Your task to perform on an android device: Toggle the flashlight Image 0: 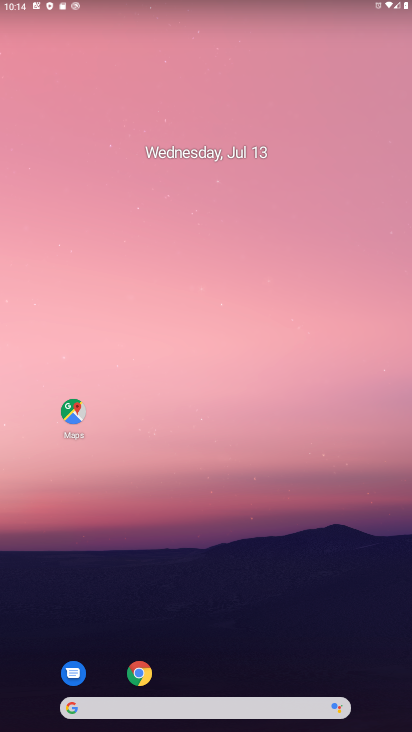
Step 0: drag from (228, 308) to (198, 117)
Your task to perform on an android device: Toggle the flashlight Image 1: 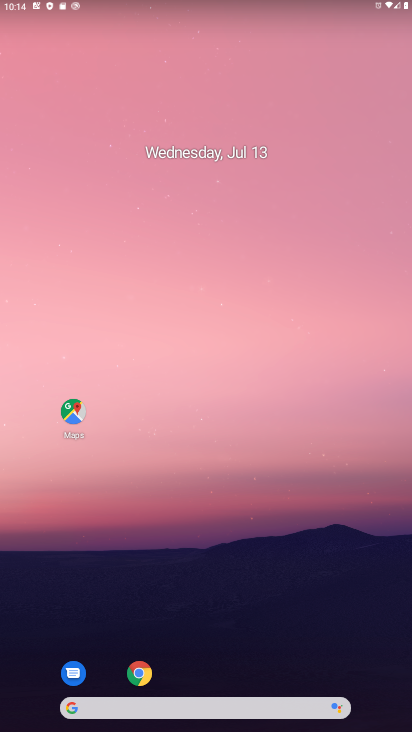
Step 1: drag from (263, 658) to (194, 196)
Your task to perform on an android device: Toggle the flashlight Image 2: 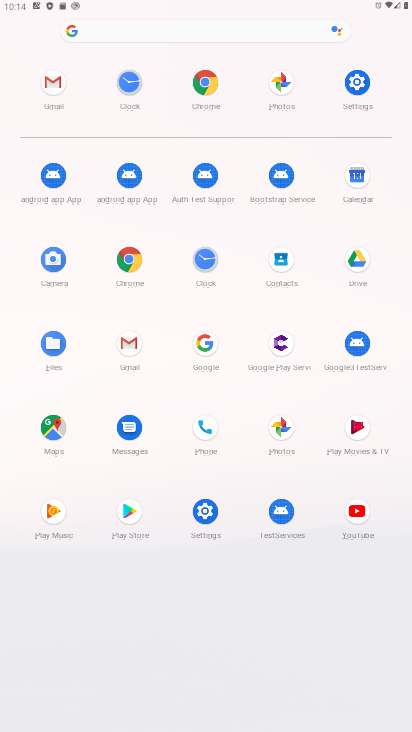
Step 2: click (362, 102)
Your task to perform on an android device: Toggle the flashlight Image 3: 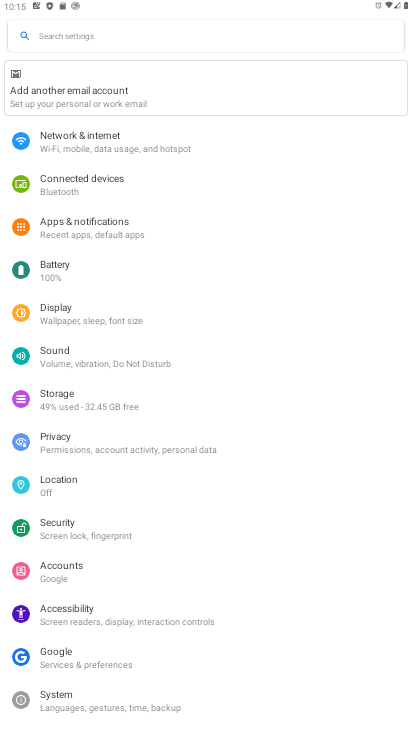
Step 3: task complete